Your task to perform on an android device: make emails show in primary in the gmail app Image 0: 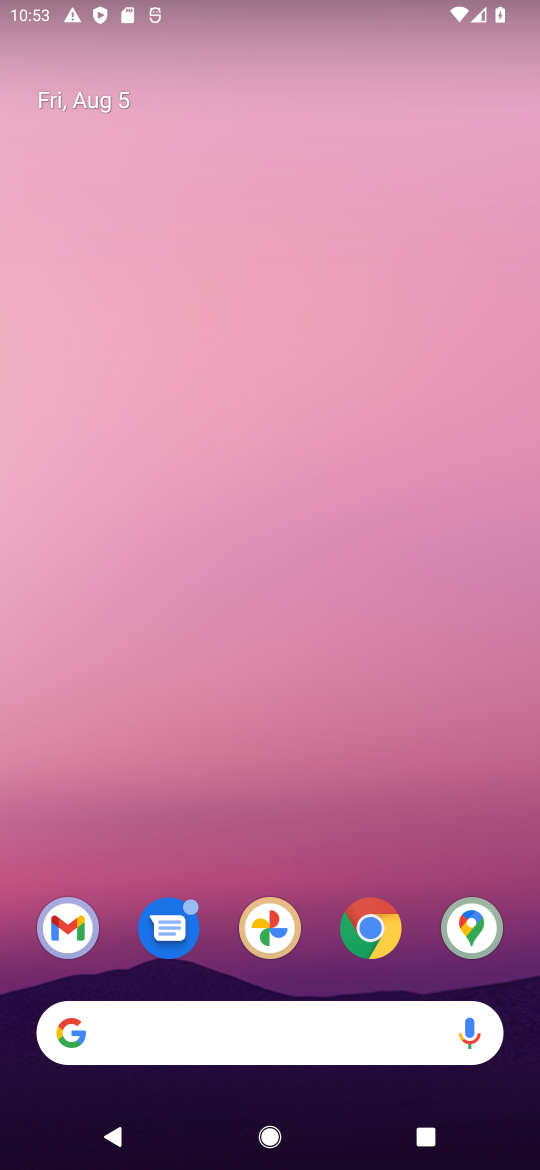
Step 0: drag from (286, 971) to (472, 11)
Your task to perform on an android device: make emails show in primary in the gmail app Image 1: 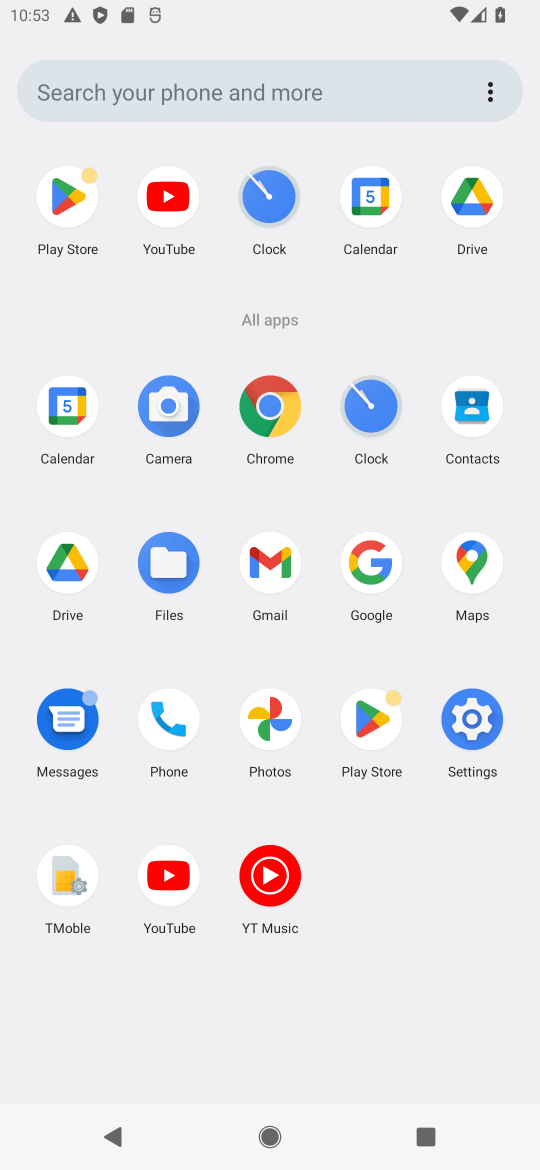
Step 1: click (257, 584)
Your task to perform on an android device: make emails show in primary in the gmail app Image 2: 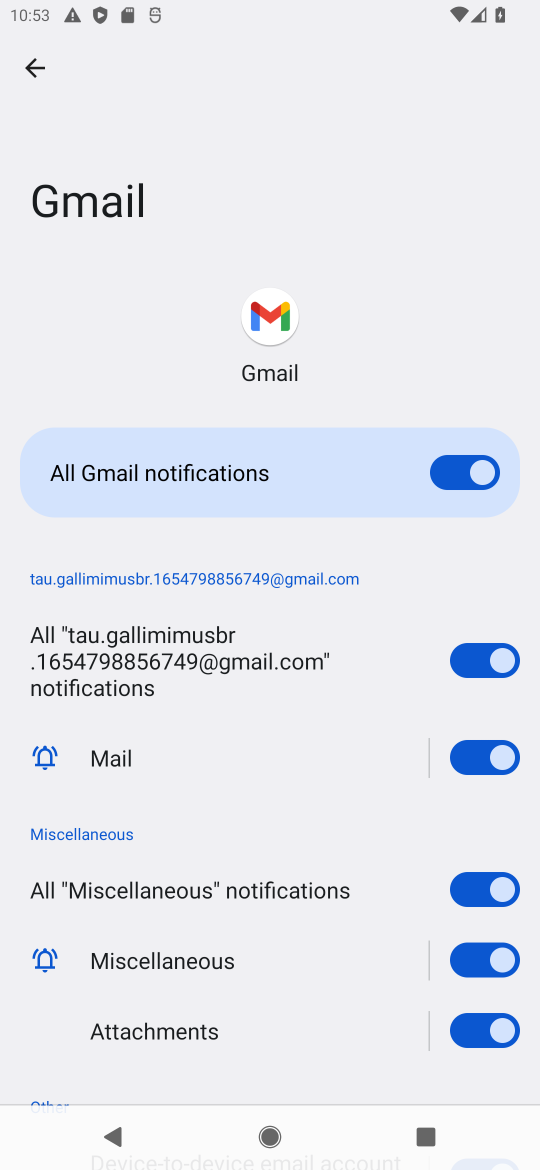
Step 2: click (38, 82)
Your task to perform on an android device: make emails show in primary in the gmail app Image 3: 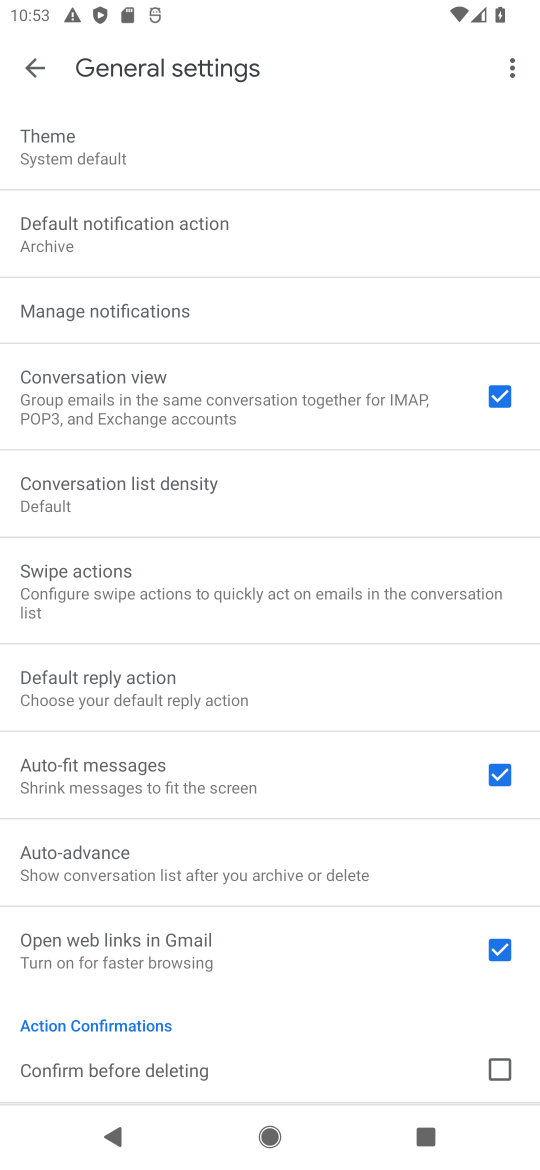
Step 3: click (38, 82)
Your task to perform on an android device: make emails show in primary in the gmail app Image 4: 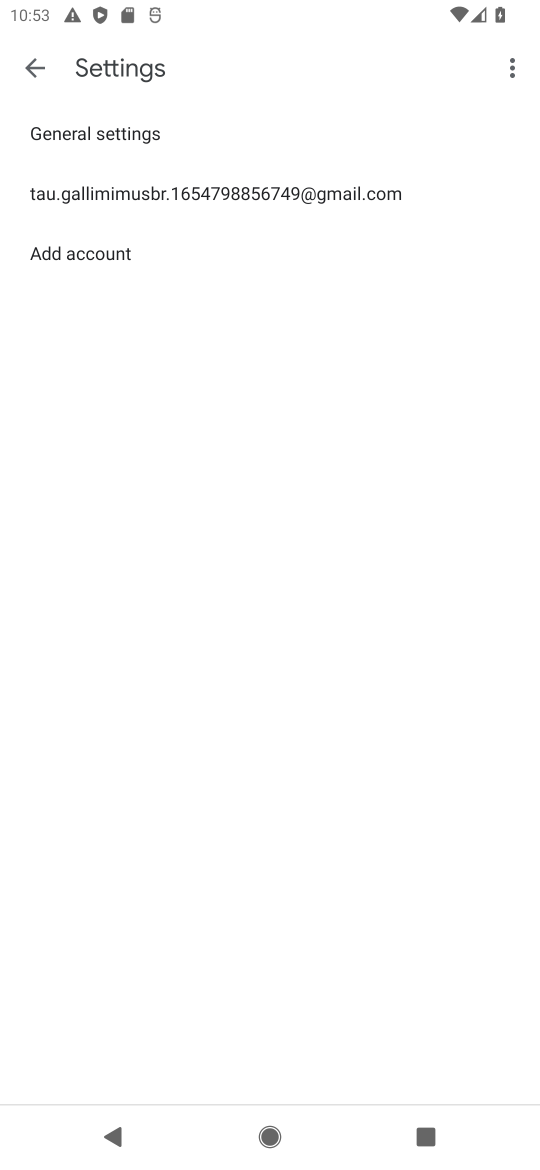
Step 4: click (96, 187)
Your task to perform on an android device: make emails show in primary in the gmail app Image 5: 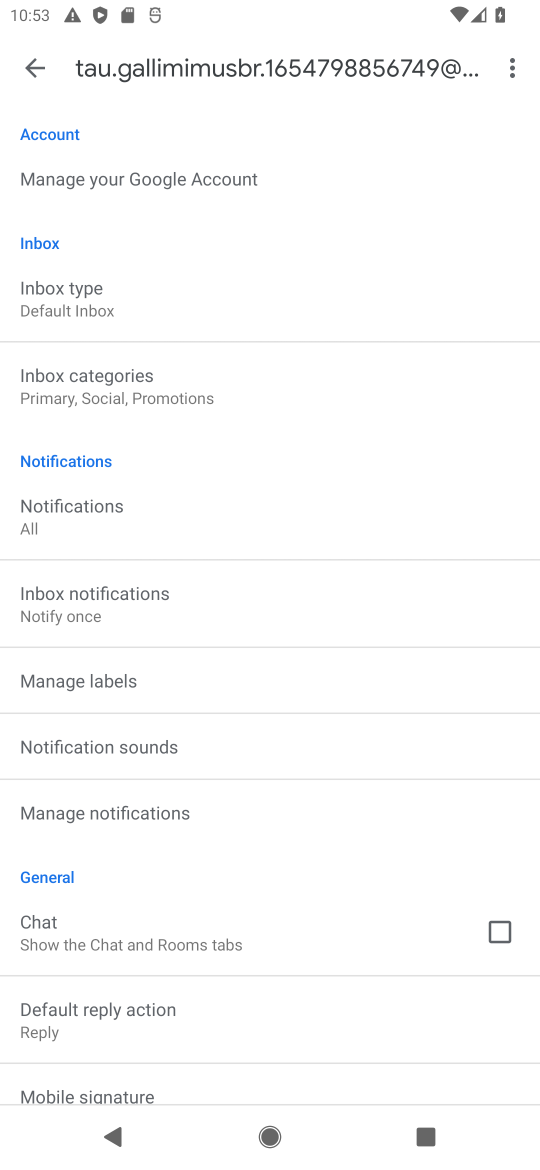
Step 5: click (29, 67)
Your task to perform on an android device: make emails show in primary in the gmail app Image 6: 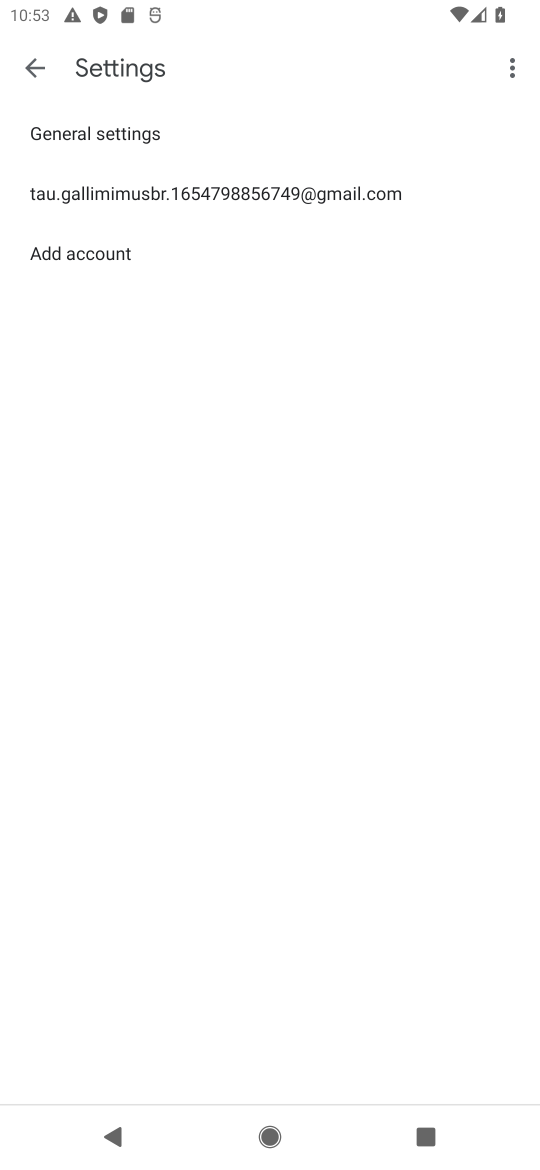
Step 6: click (29, 67)
Your task to perform on an android device: make emails show in primary in the gmail app Image 7: 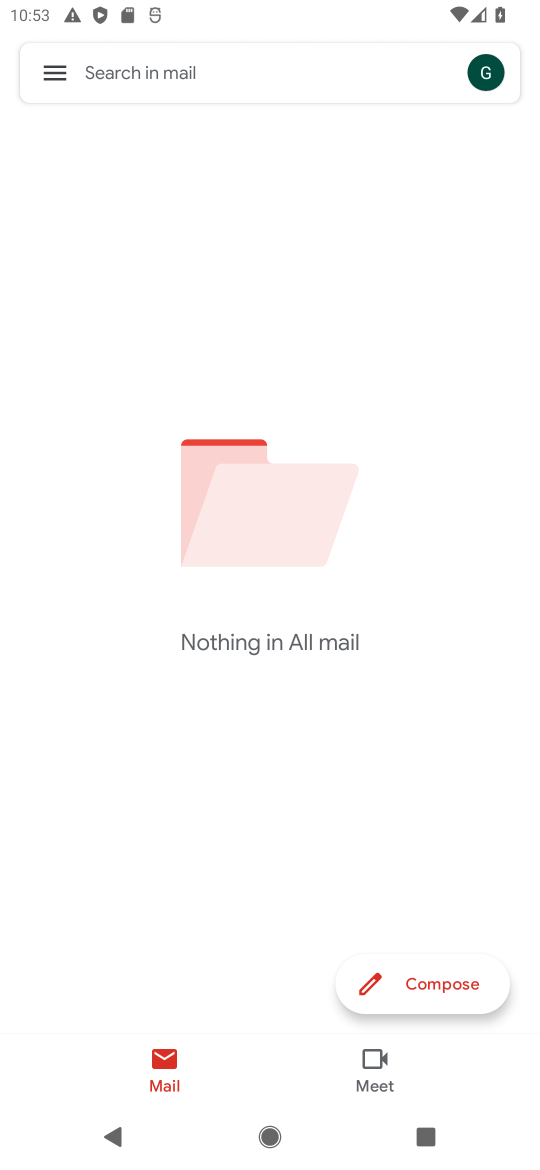
Step 7: click (29, 67)
Your task to perform on an android device: make emails show in primary in the gmail app Image 8: 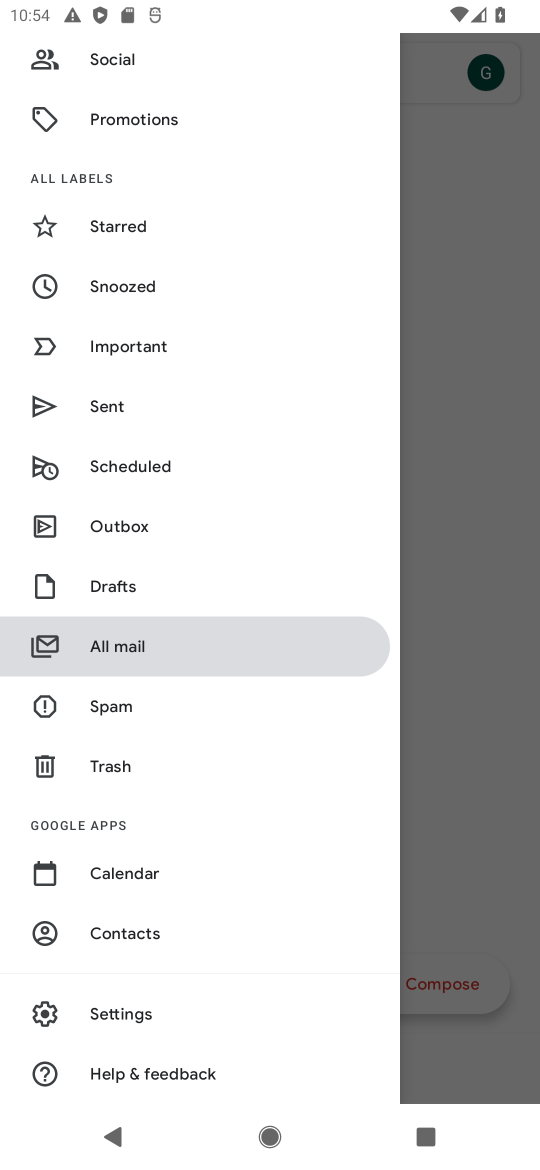
Step 8: drag from (61, 83) to (32, 607)
Your task to perform on an android device: make emails show in primary in the gmail app Image 9: 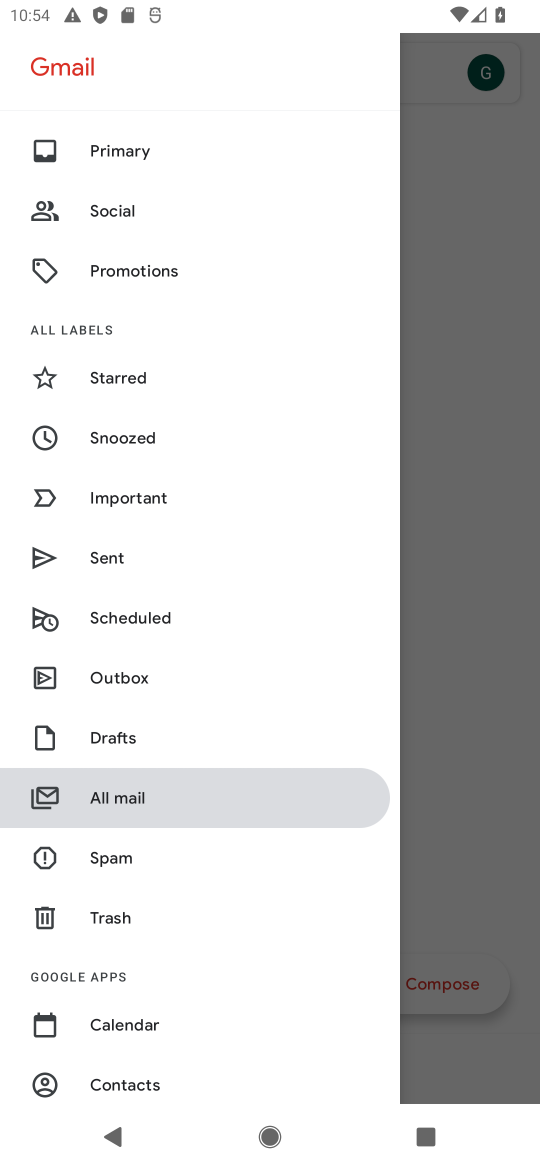
Step 9: click (104, 134)
Your task to perform on an android device: make emails show in primary in the gmail app Image 10: 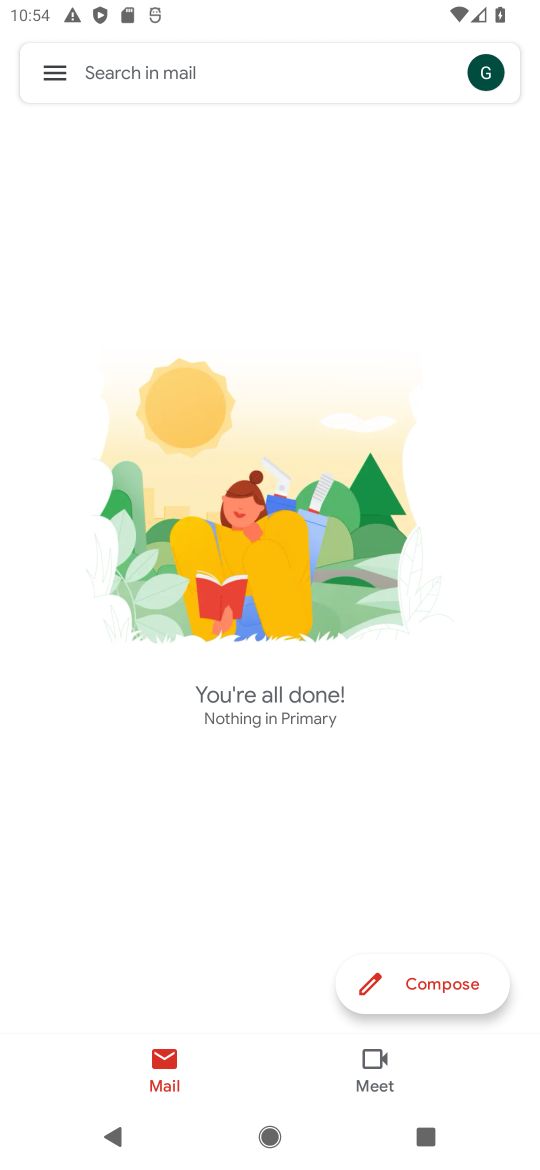
Step 10: task complete